Your task to perform on an android device: change timer sound Image 0: 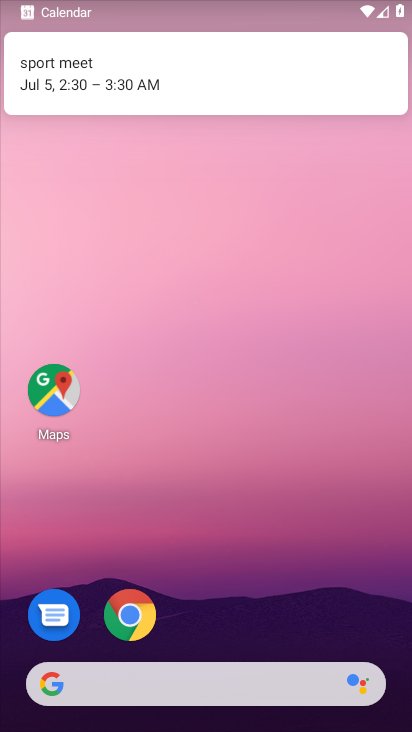
Step 0: drag from (226, 586) to (341, 107)
Your task to perform on an android device: change timer sound Image 1: 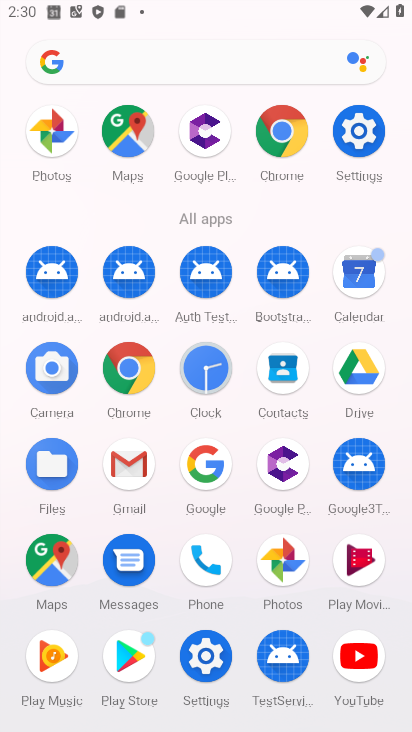
Step 1: click (200, 380)
Your task to perform on an android device: change timer sound Image 2: 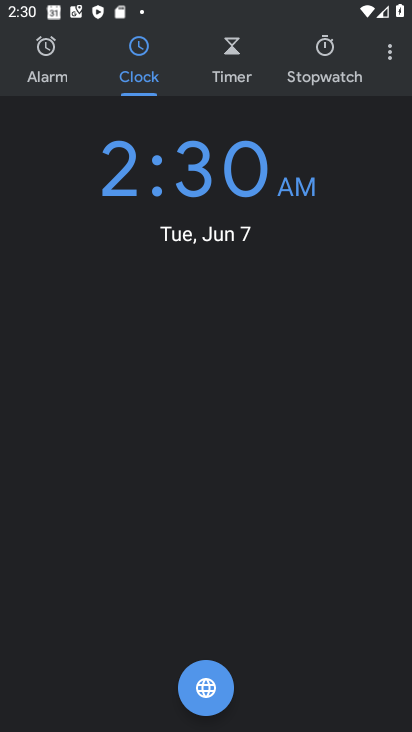
Step 2: click (386, 66)
Your task to perform on an android device: change timer sound Image 3: 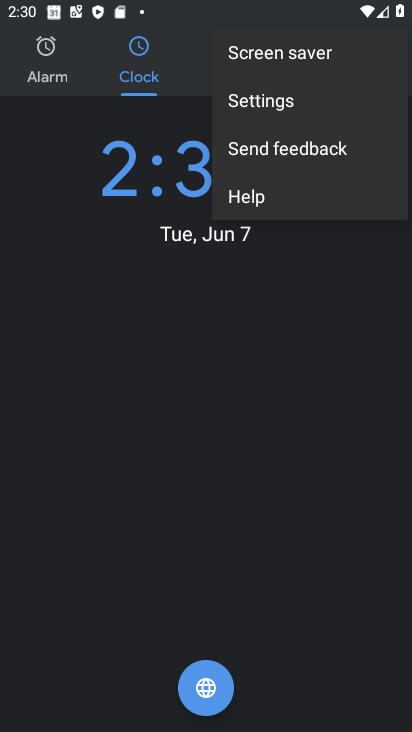
Step 3: click (335, 121)
Your task to perform on an android device: change timer sound Image 4: 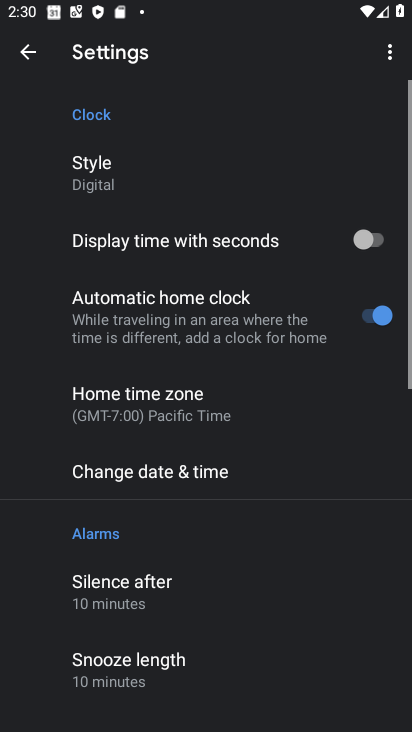
Step 4: drag from (201, 597) to (338, 230)
Your task to perform on an android device: change timer sound Image 5: 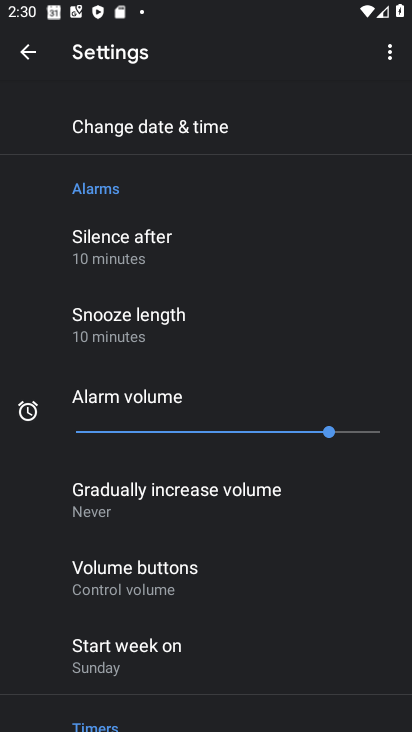
Step 5: drag from (150, 626) to (259, 371)
Your task to perform on an android device: change timer sound Image 6: 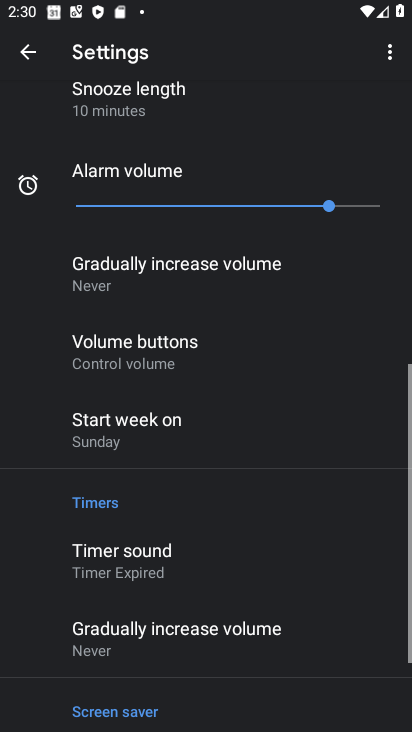
Step 6: click (193, 549)
Your task to perform on an android device: change timer sound Image 7: 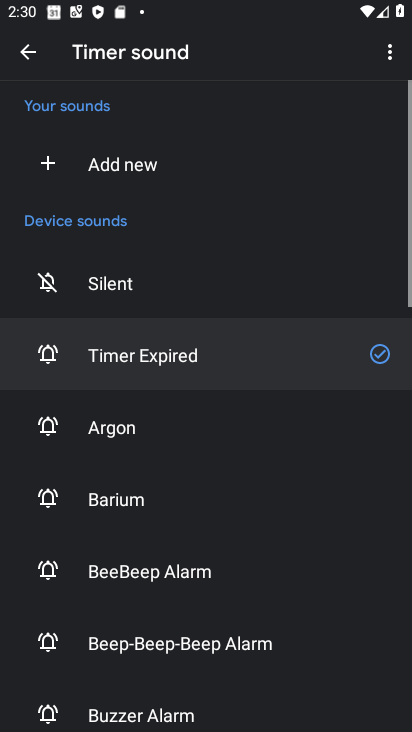
Step 7: click (198, 647)
Your task to perform on an android device: change timer sound Image 8: 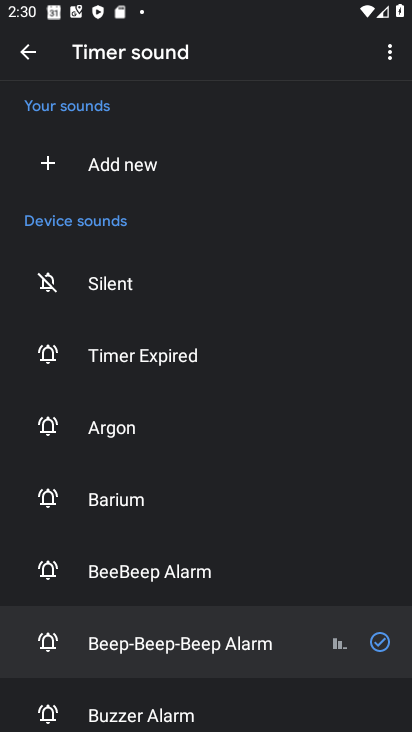
Step 8: task complete